Your task to perform on an android device: Clear the shopping cart on bestbuy.com. Add lg ultragear to the cart on bestbuy.com, then select checkout. Image 0: 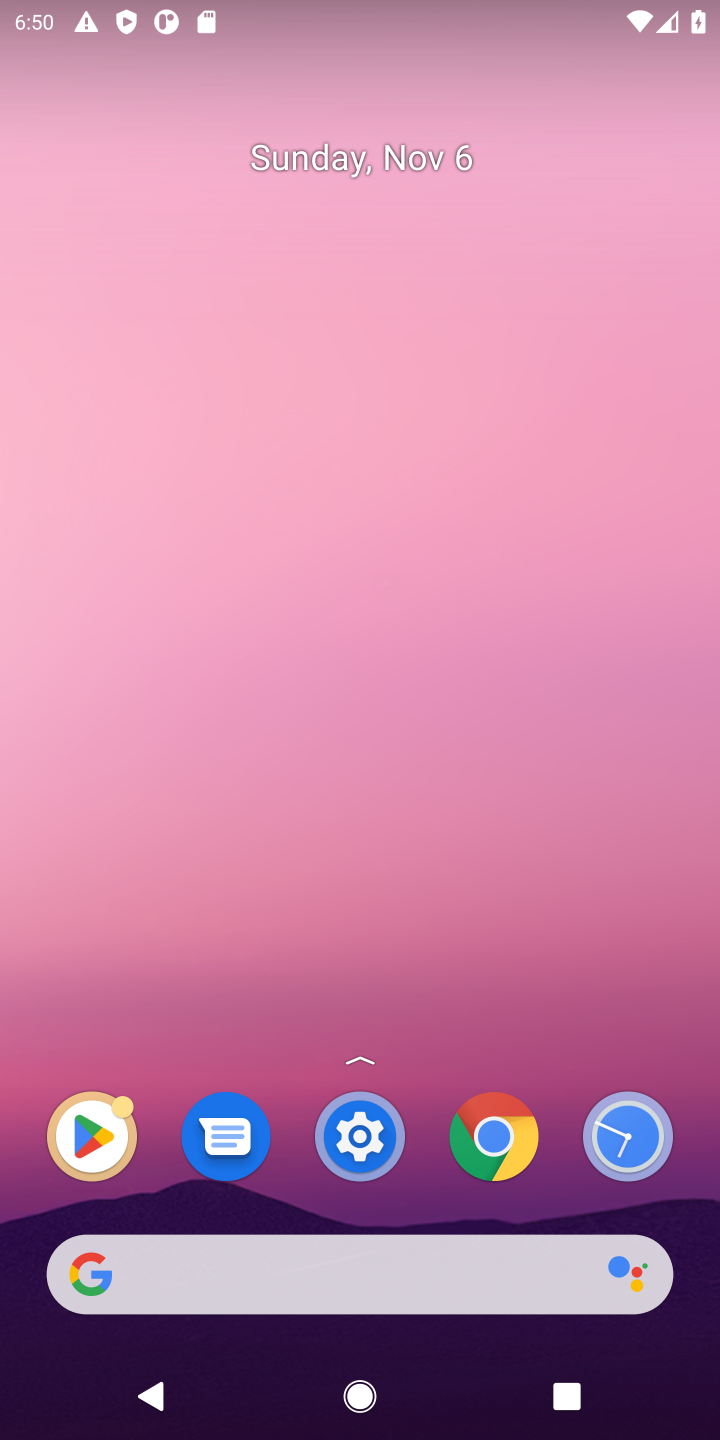
Step 0: click (326, 1271)
Your task to perform on an android device: Clear the shopping cart on bestbuy.com. Add lg ultragear to the cart on bestbuy.com, then select checkout. Image 1: 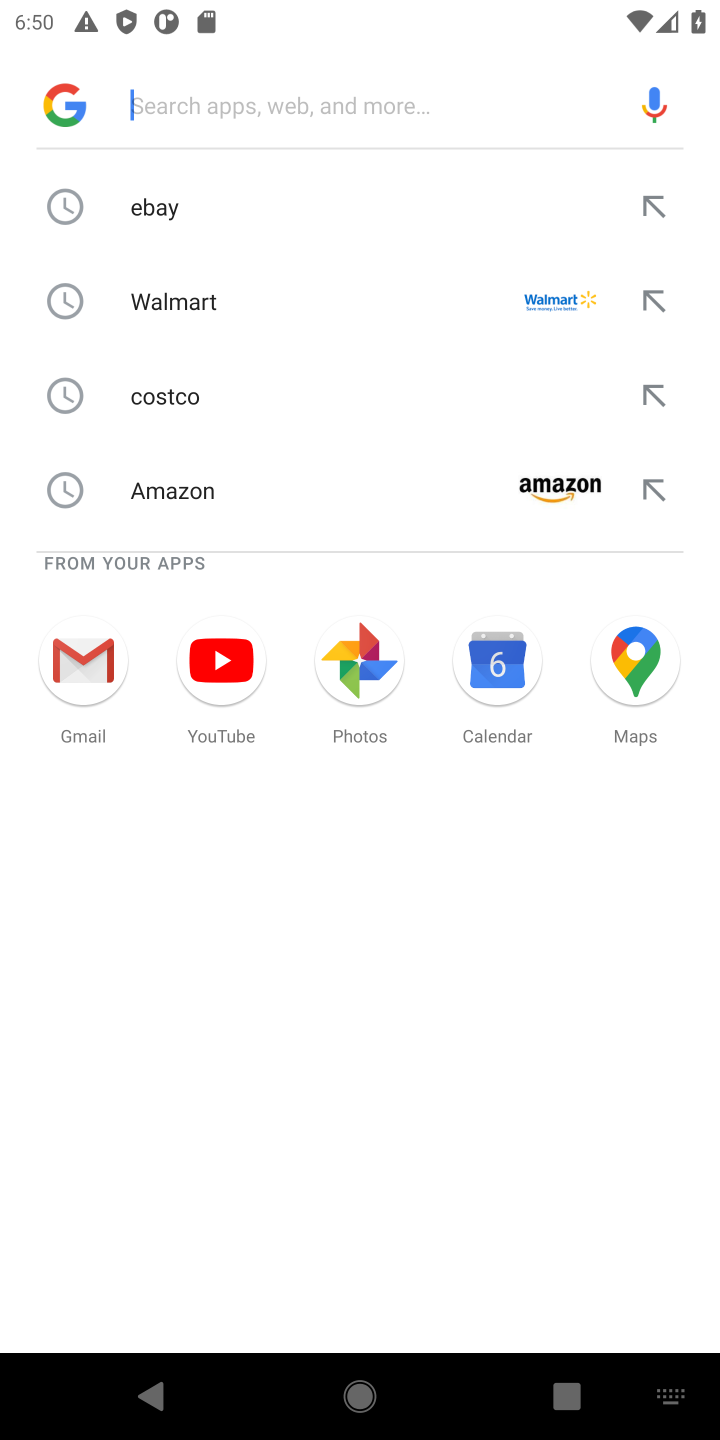
Step 1: type "bestbuy"
Your task to perform on an android device: Clear the shopping cart on bestbuy.com. Add lg ultragear to the cart on bestbuy.com, then select checkout. Image 2: 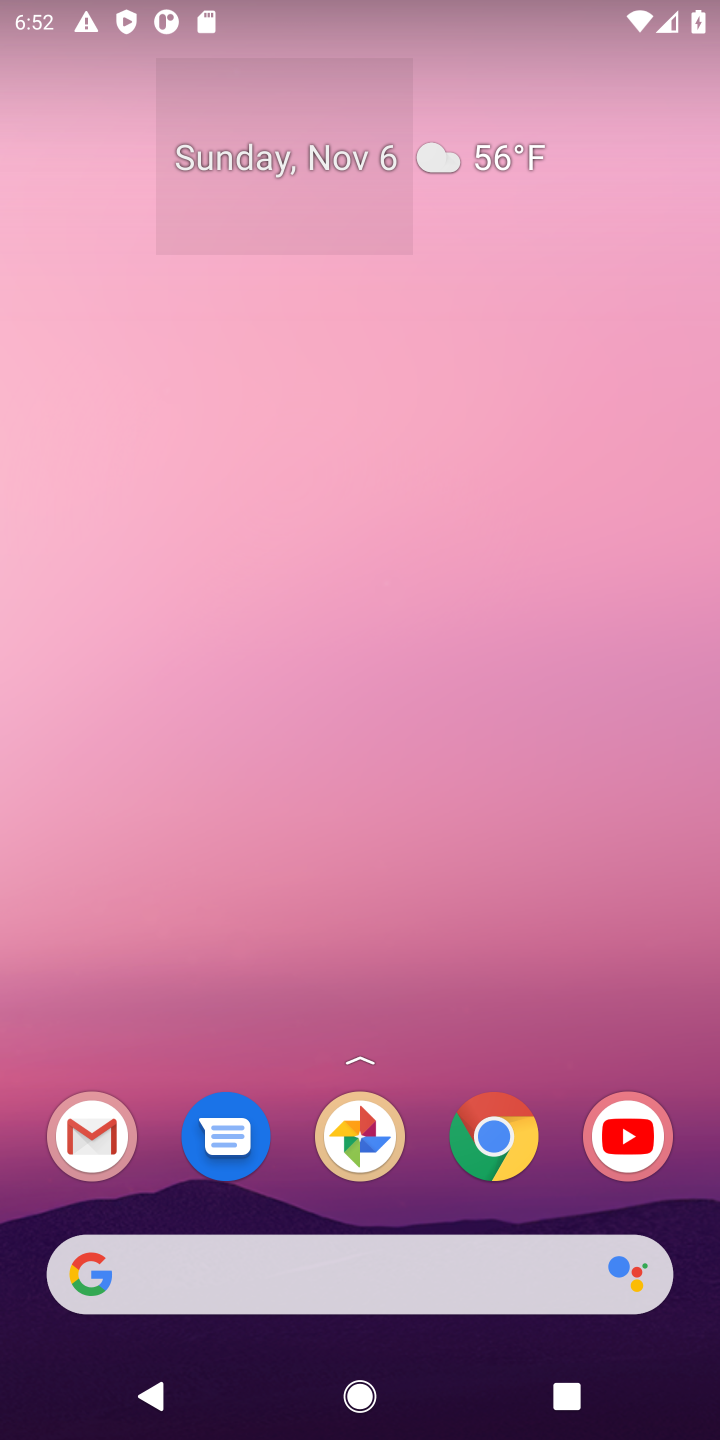
Step 2: type "'"
Your task to perform on an android device: Clear the shopping cart on bestbuy.com. Add lg ultragear to the cart on bestbuy.com, then select checkout. Image 3: 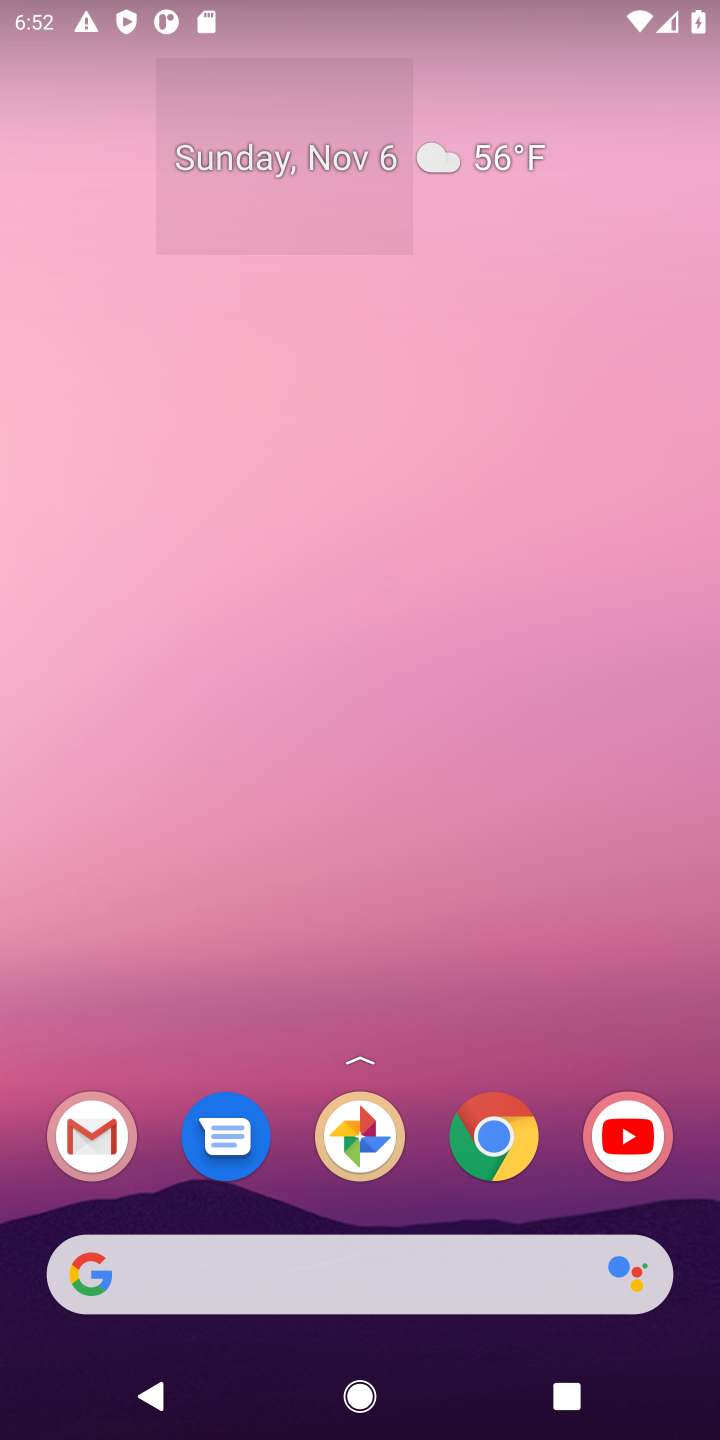
Step 3: click (361, 1293)
Your task to perform on an android device: Clear the shopping cart on bestbuy.com. Add lg ultragear to the cart on bestbuy.com, then select checkout. Image 4: 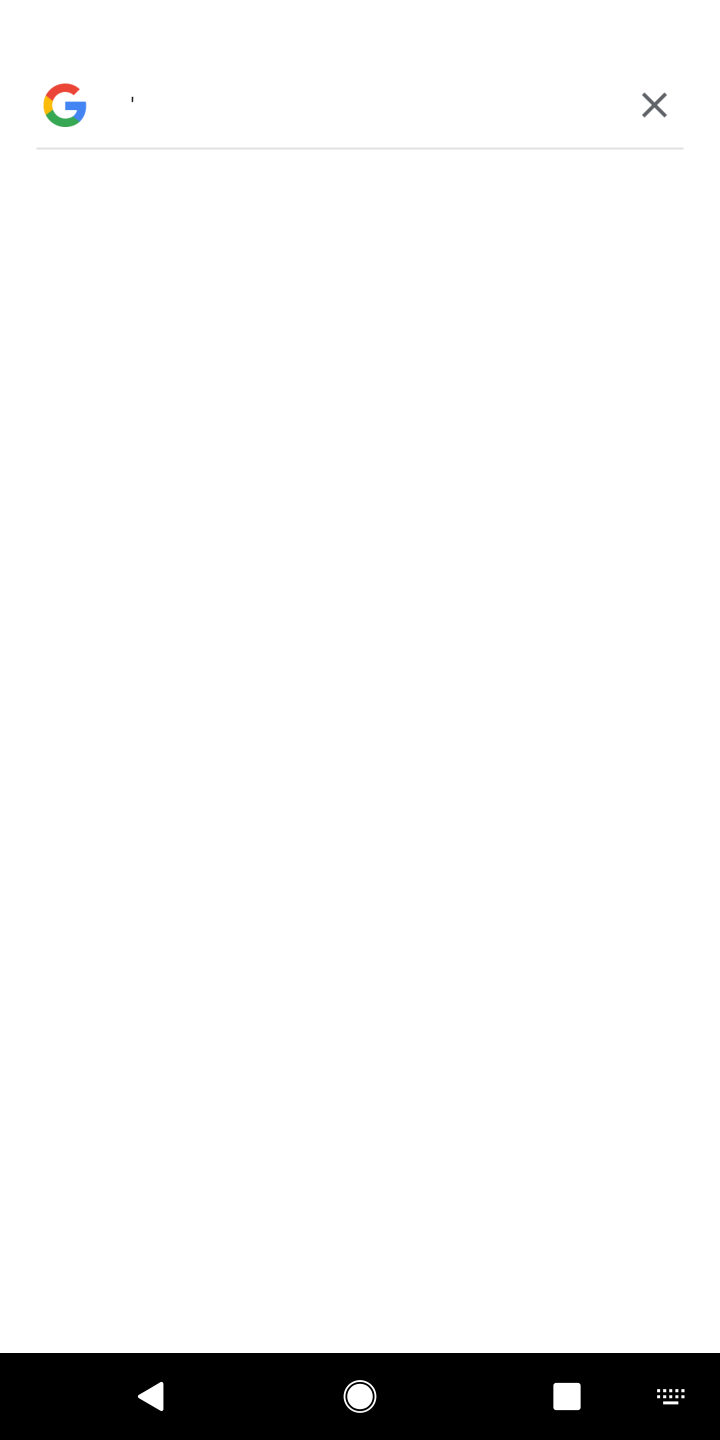
Step 4: task complete